Your task to perform on an android device: open a bookmark in the chrome app Image 0: 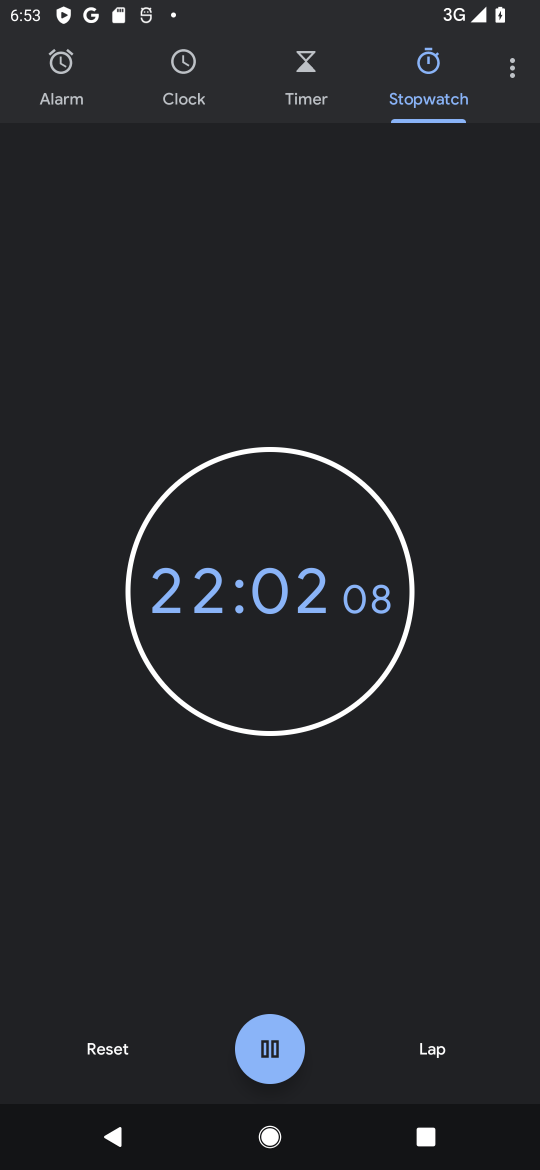
Step 0: press home button
Your task to perform on an android device: open a bookmark in the chrome app Image 1: 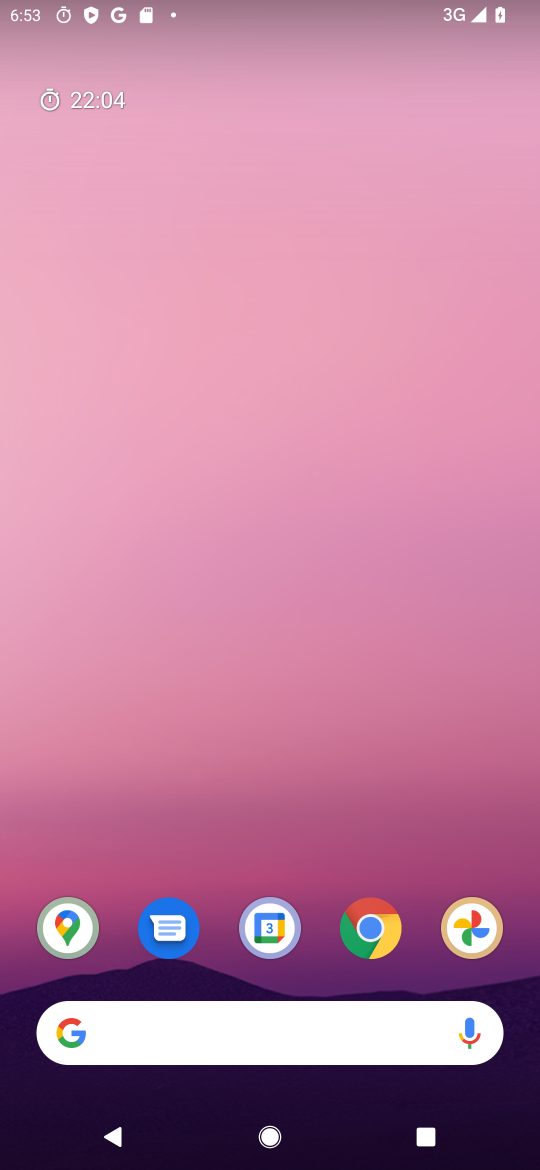
Step 1: drag from (322, 838) to (291, 269)
Your task to perform on an android device: open a bookmark in the chrome app Image 2: 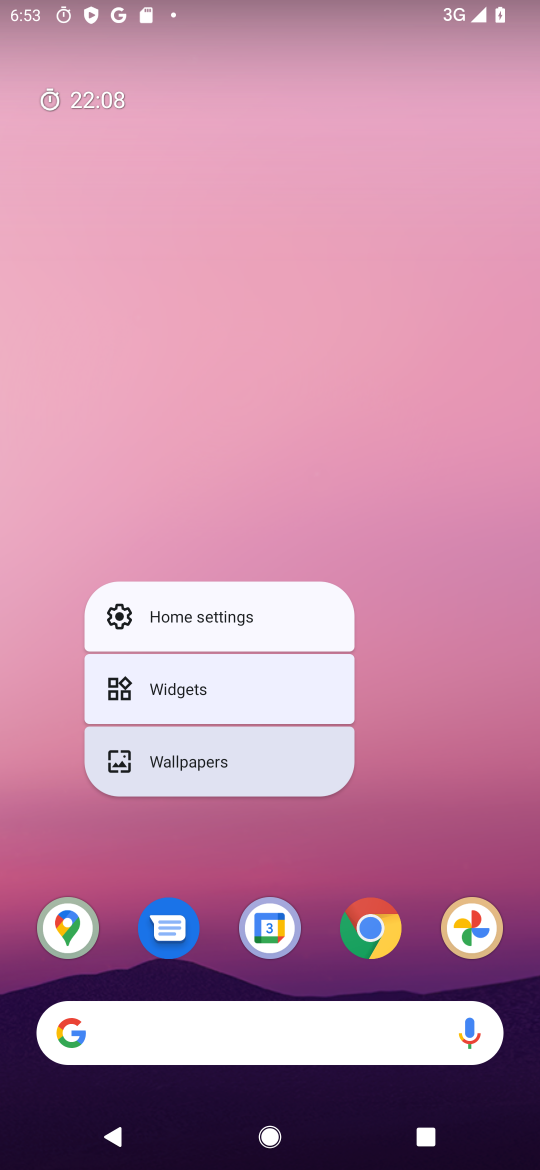
Step 2: click (435, 745)
Your task to perform on an android device: open a bookmark in the chrome app Image 3: 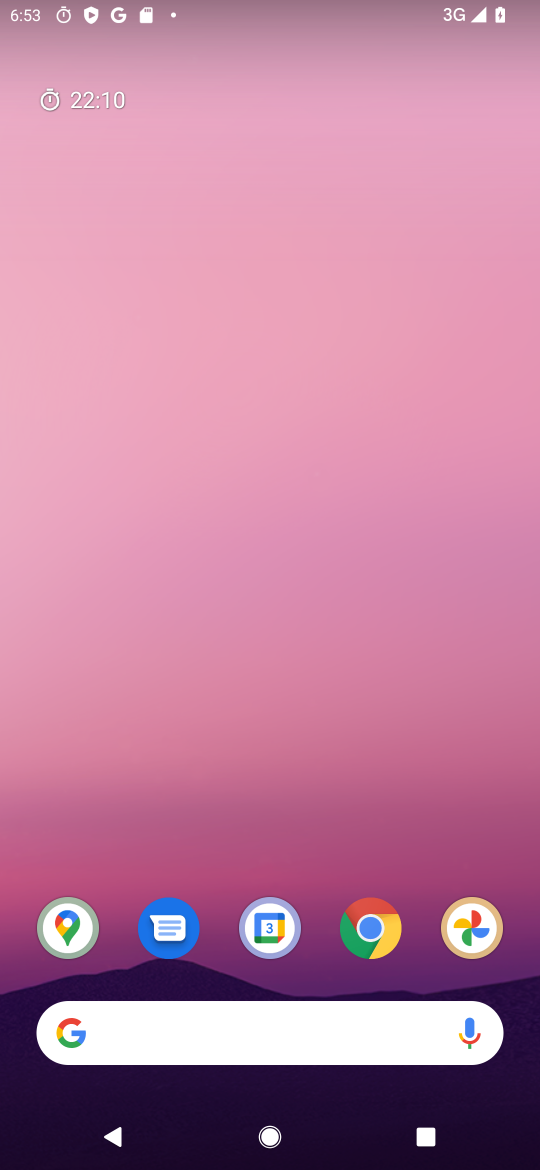
Step 3: drag from (359, 793) to (357, 125)
Your task to perform on an android device: open a bookmark in the chrome app Image 4: 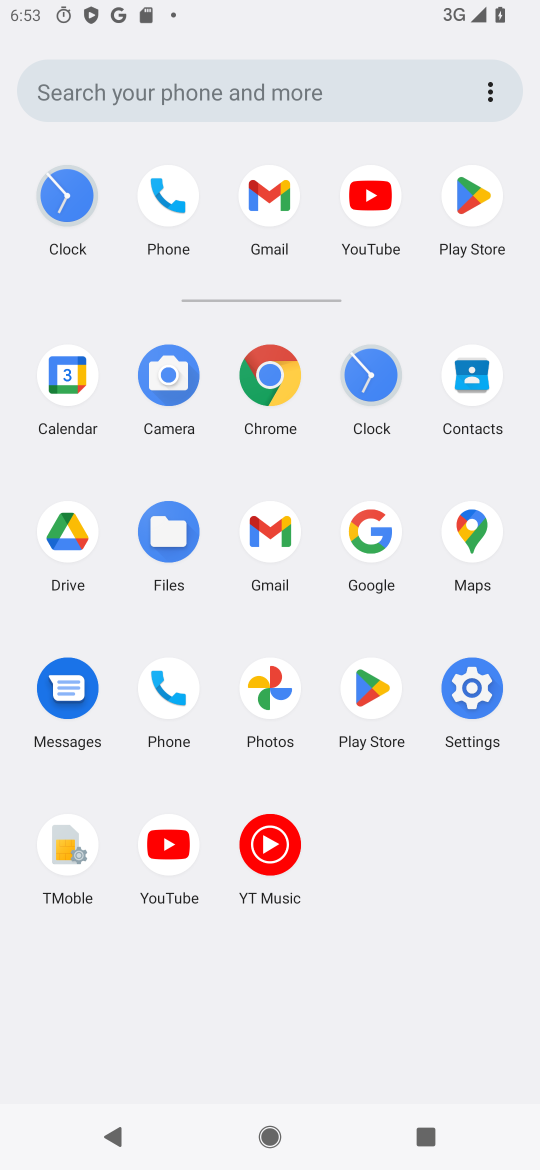
Step 4: click (281, 393)
Your task to perform on an android device: open a bookmark in the chrome app Image 5: 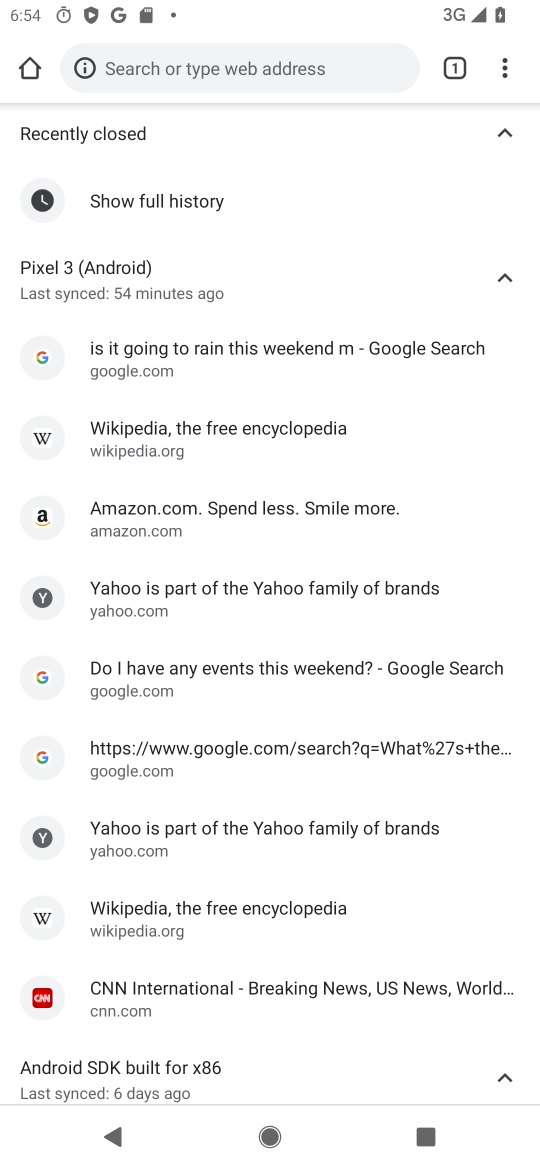
Step 5: click (504, 70)
Your task to perform on an android device: open a bookmark in the chrome app Image 6: 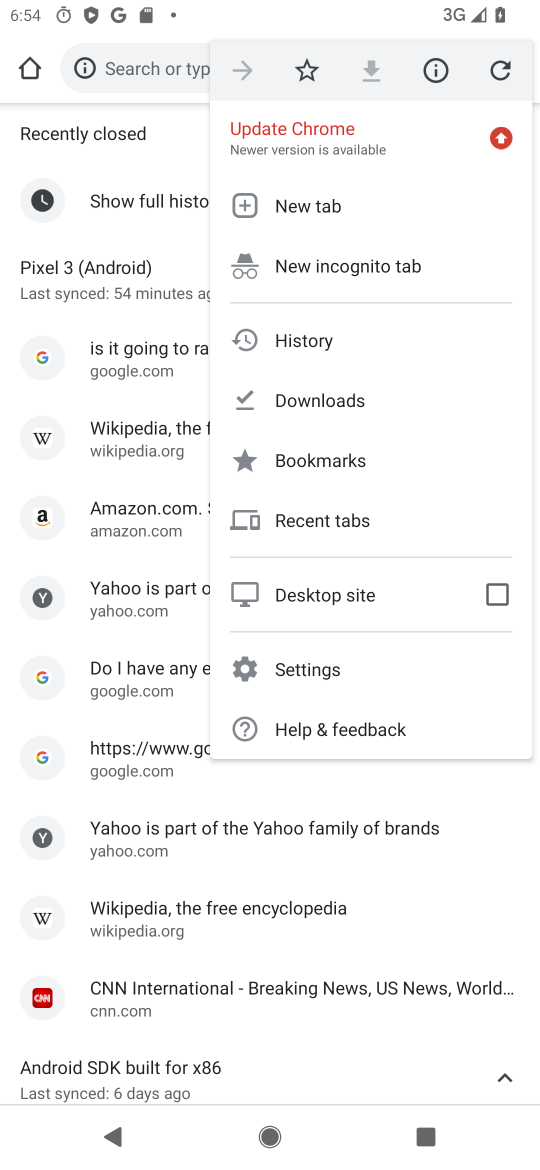
Step 6: click (345, 465)
Your task to perform on an android device: open a bookmark in the chrome app Image 7: 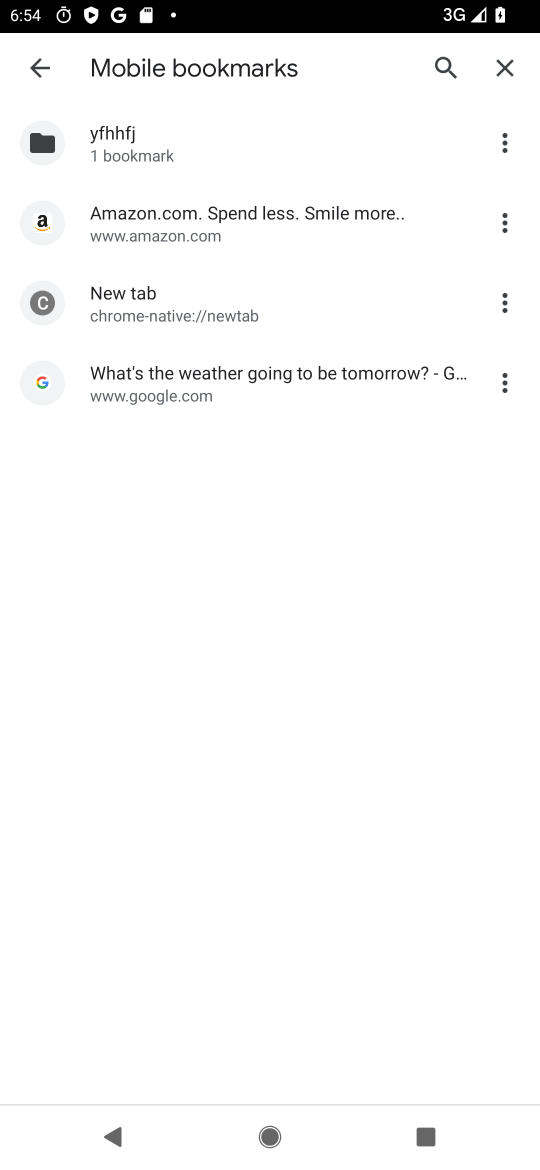
Step 7: click (202, 221)
Your task to perform on an android device: open a bookmark in the chrome app Image 8: 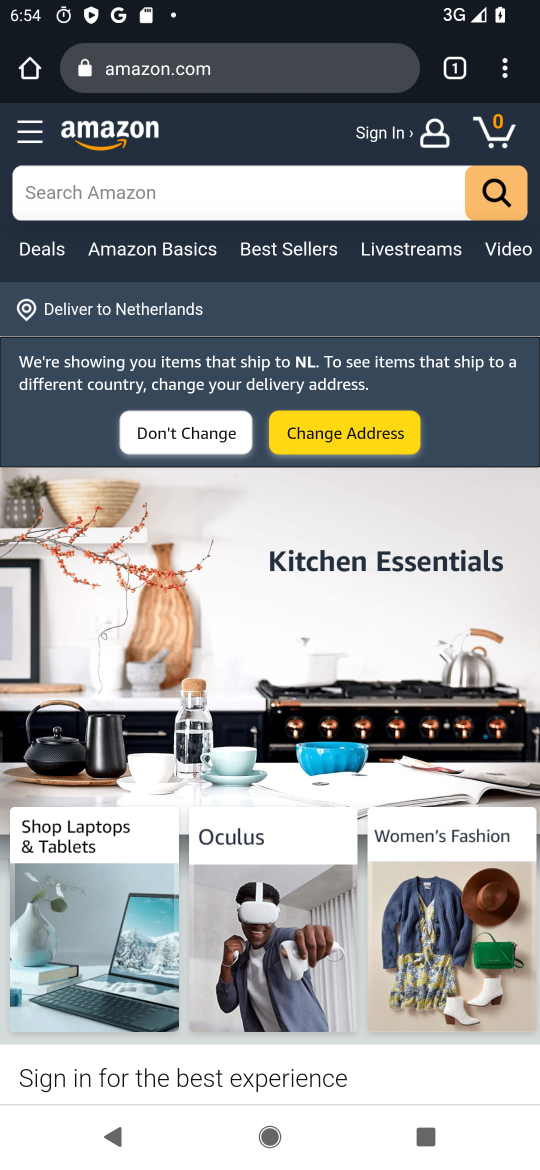
Step 8: task complete